Your task to perform on an android device: turn smart compose on in the gmail app Image 0: 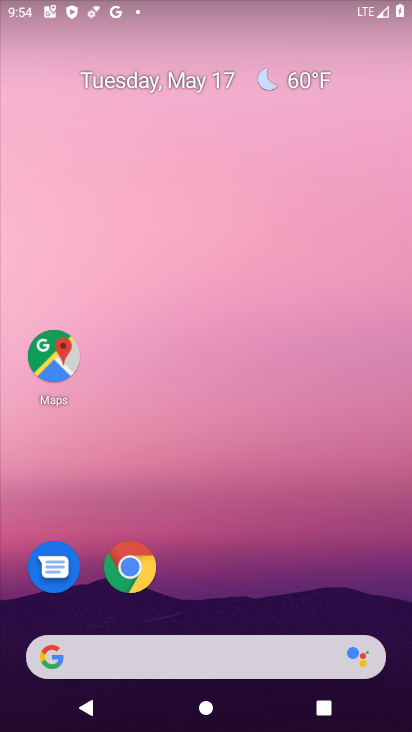
Step 0: drag from (401, 631) to (316, 8)
Your task to perform on an android device: turn smart compose on in the gmail app Image 1: 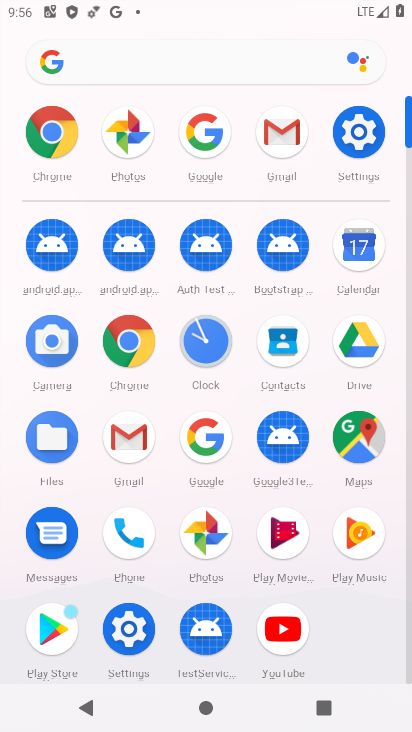
Step 1: click (126, 440)
Your task to perform on an android device: turn smart compose on in the gmail app Image 2: 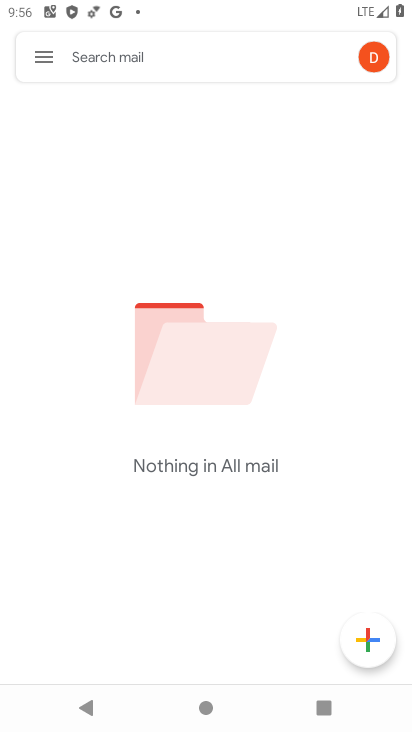
Step 2: click (36, 68)
Your task to perform on an android device: turn smart compose on in the gmail app Image 3: 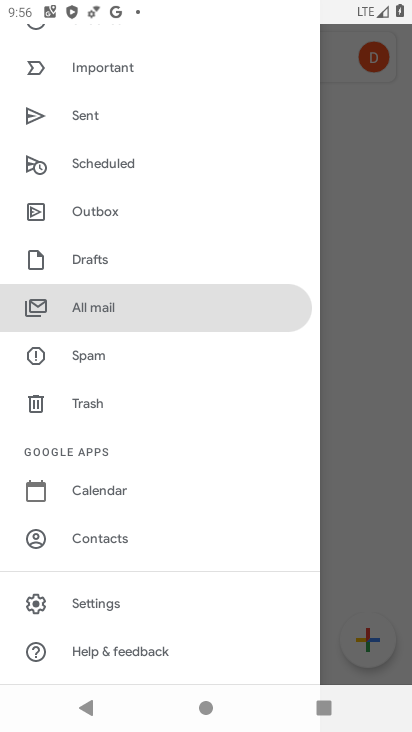
Step 3: click (107, 609)
Your task to perform on an android device: turn smart compose on in the gmail app Image 4: 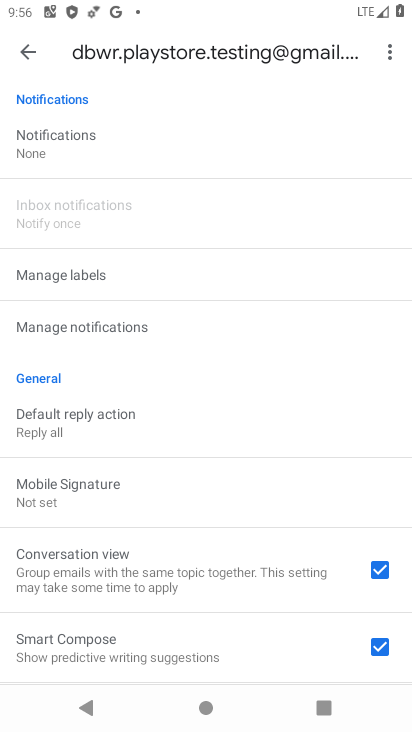
Step 4: task complete